Your task to perform on an android device: change the clock display to show seconds Image 0: 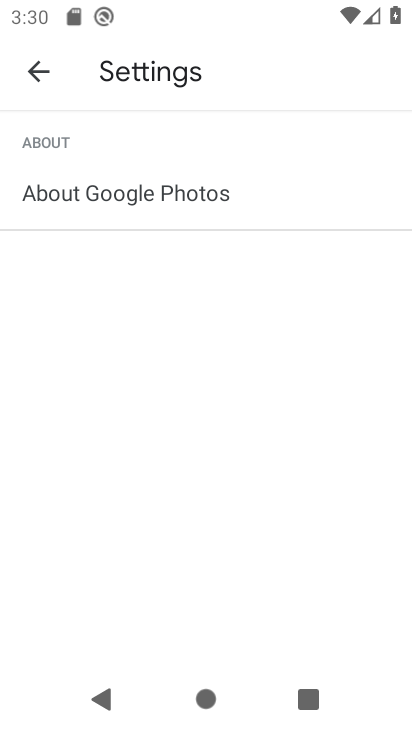
Step 0: press home button
Your task to perform on an android device: change the clock display to show seconds Image 1: 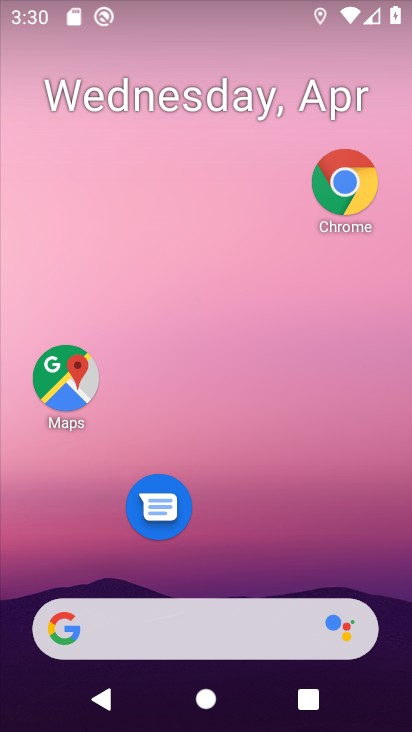
Step 1: drag from (221, 394) to (284, 26)
Your task to perform on an android device: change the clock display to show seconds Image 2: 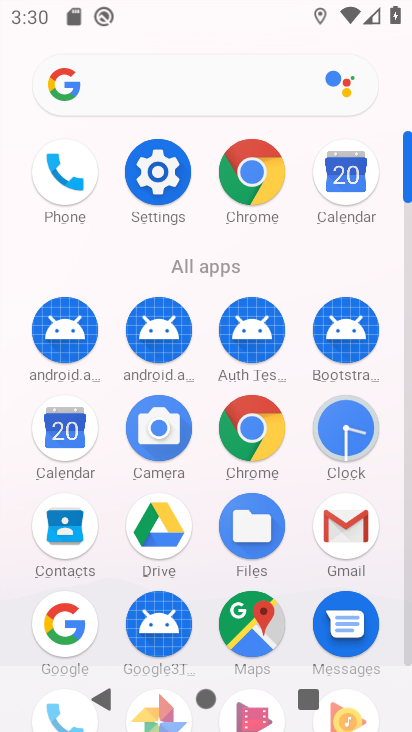
Step 2: click (348, 429)
Your task to perform on an android device: change the clock display to show seconds Image 3: 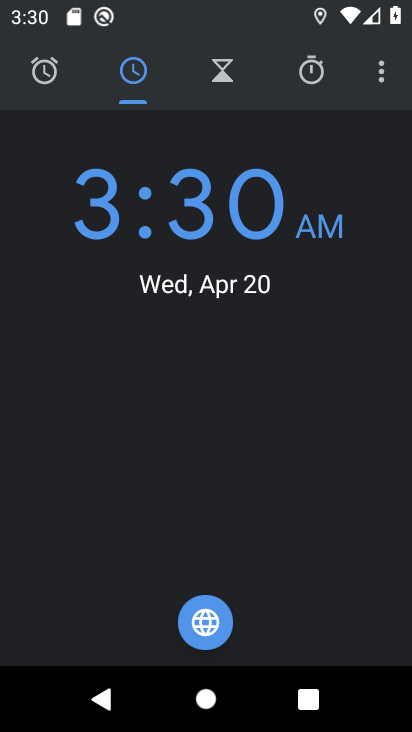
Step 3: click (377, 72)
Your task to perform on an android device: change the clock display to show seconds Image 4: 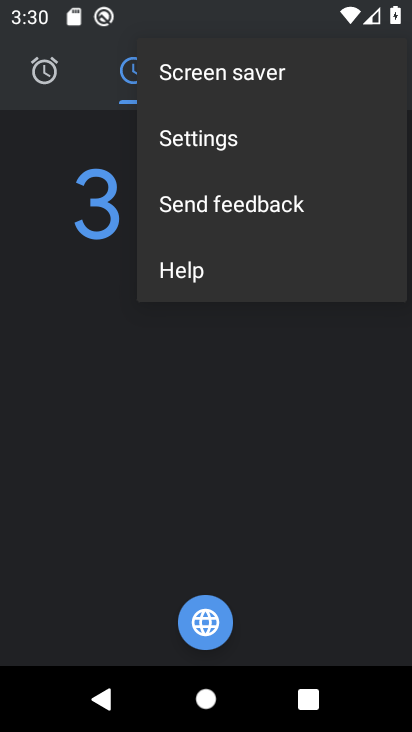
Step 4: click (204, 139)
Your task to perform on an android device: change the clock display to show seconds Image 5: 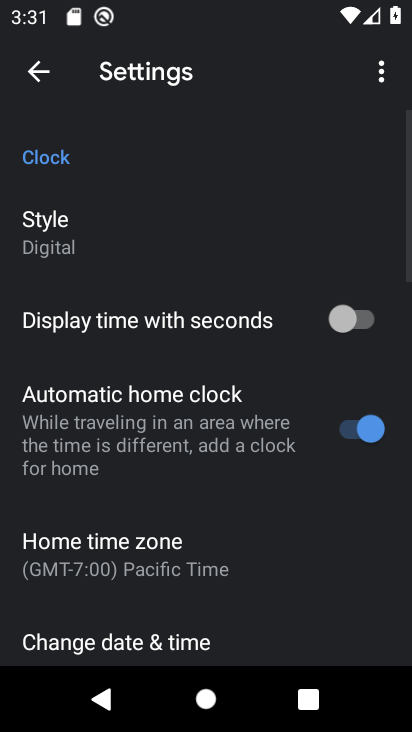
Step 5: click (67, 243)
Your task to perform on an android device: change the clock display to show seconds Image 6: 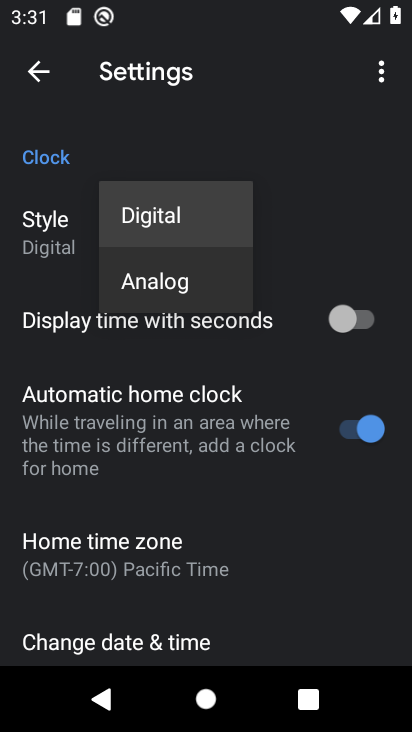
Step 6: click (206, 289)
Your task to perform on an android device: change the clock display to show seconds Image 7: 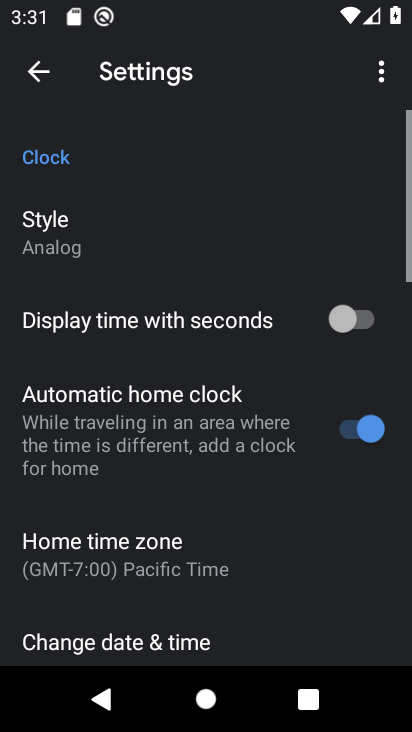
Step 7: click (356, 313)
Your task to perform on an android device: change the clock display to show seconds Image 8: 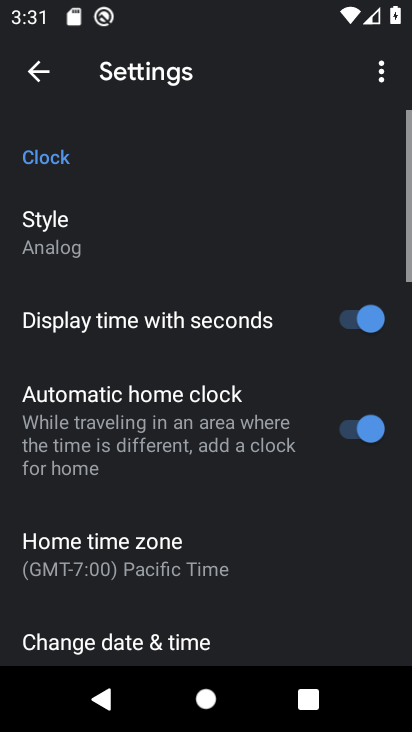
Step 8: task complete